Your task to perform on an android device: read, delete, or share a saved page in the chrome app Image 0: 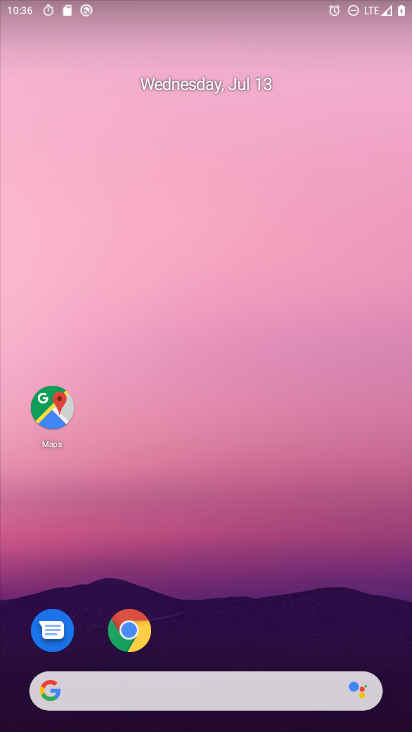
Step 0: drag from (352, 649) to (234, 0)
Your task to perform on an android device: read, delete, or share a saved page in the chrome app Image 1: 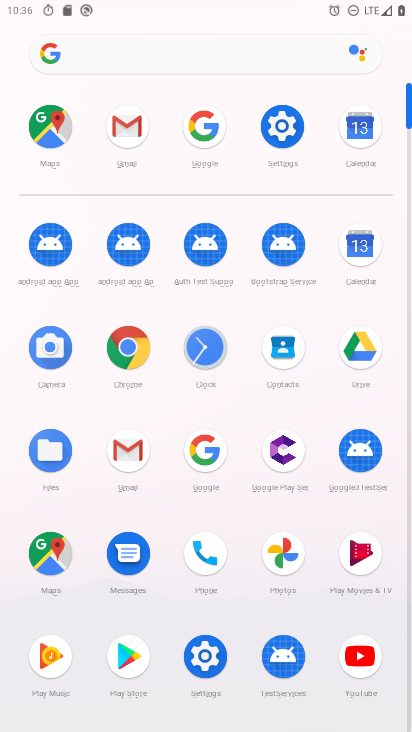
Step 1: click (126, 358)
Your task to perform on an android device: read, delete, or share a saved page in the chrome app Image 2: 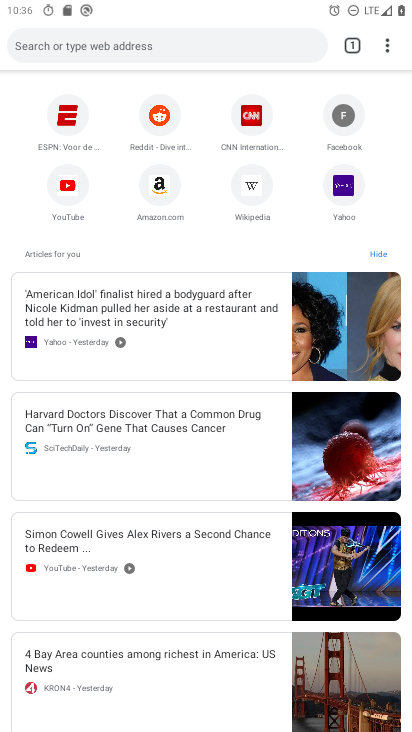
Step 2: task complete